Your task to perform on an android device: turn off translation in the chrome app Image 0: 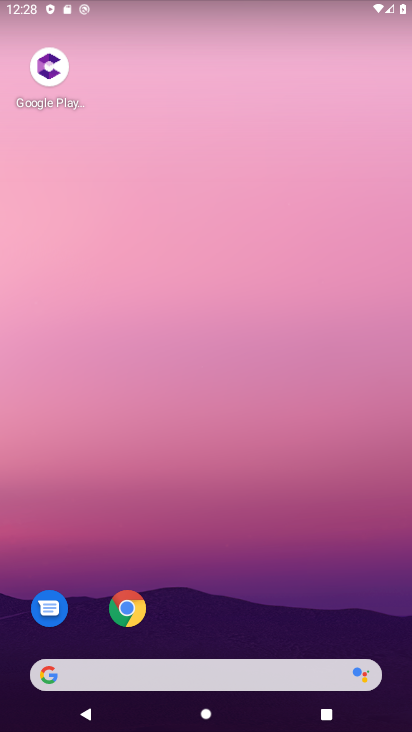
Step 0: press home button
Your task to perform on an android device: turn off translation in the chrome app Image 1: 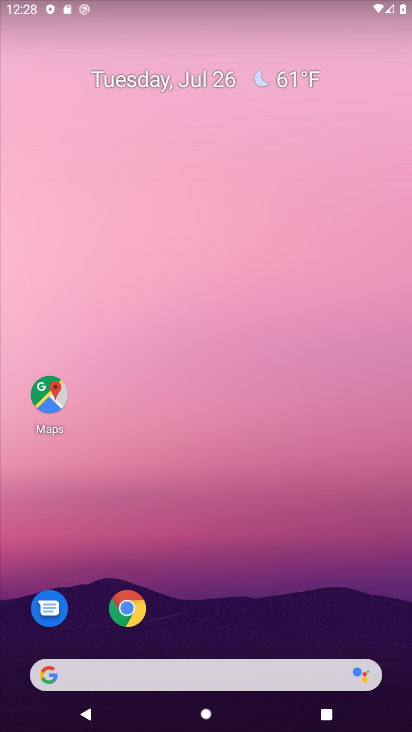
Step 1: drag from (340, 615) to (327, 186)
Your task to perform on an android device: turn off translation in the chrome app Image 2: 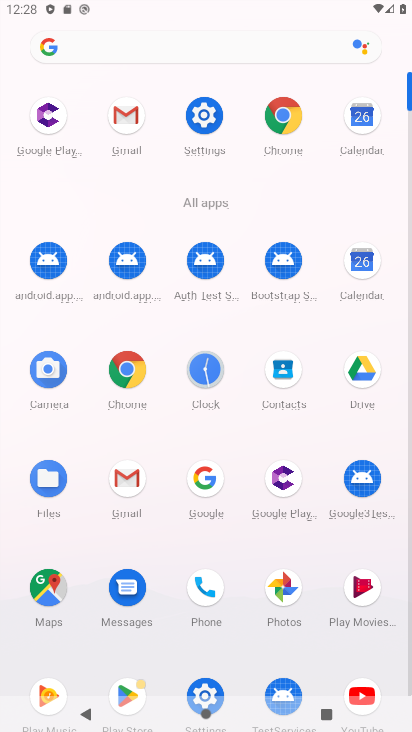
Step 2: click (135, 366)
Your task to perform on an android device: turn off translation in the chrome app Image 3: 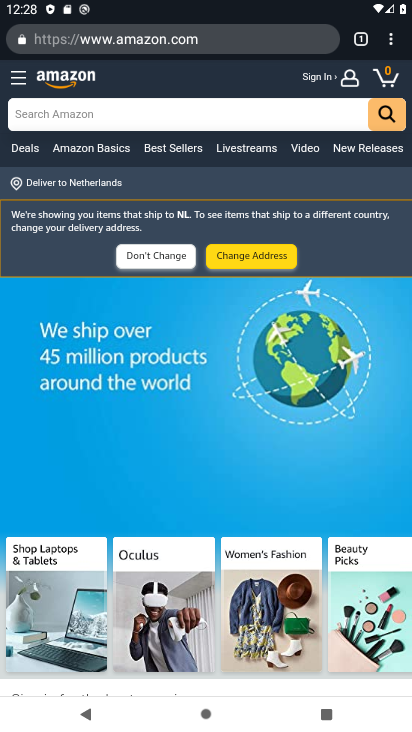
Step 3: click (393, 40)
Your task to perform on an android device: turn off translation in the chrome app Image 4: 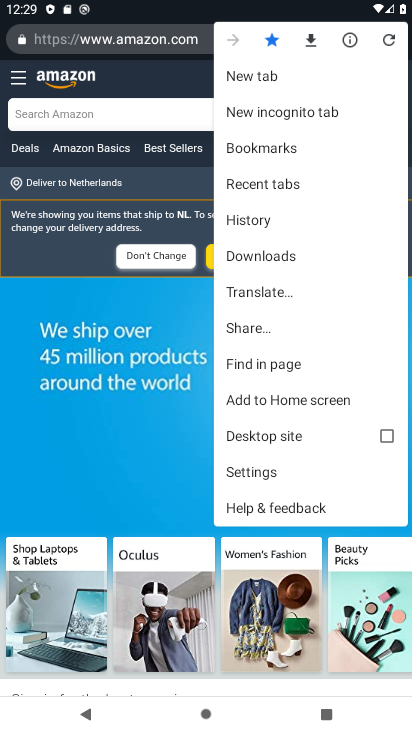
Step 4: click (269, 473)
Your task to perform on an android device: turn off translation in the chrome app Image 5: 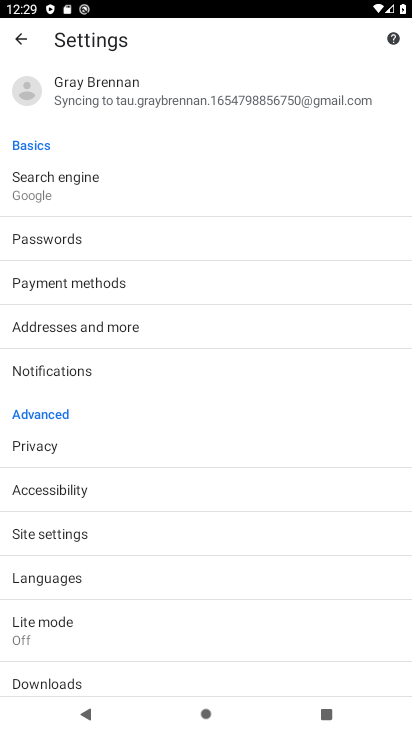
Step 5: drag from (330, 493) to (339, 401)
Your task to perform on an android device: turn off translation in the chrome app Image 6: 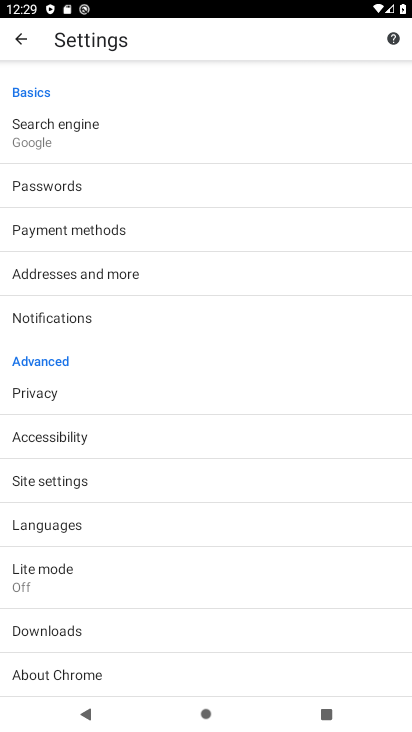
Step 6: drag from (320, 585) to (320, 480)
Your task to perform on an android device: turn off translation in the chrome app Image 7: 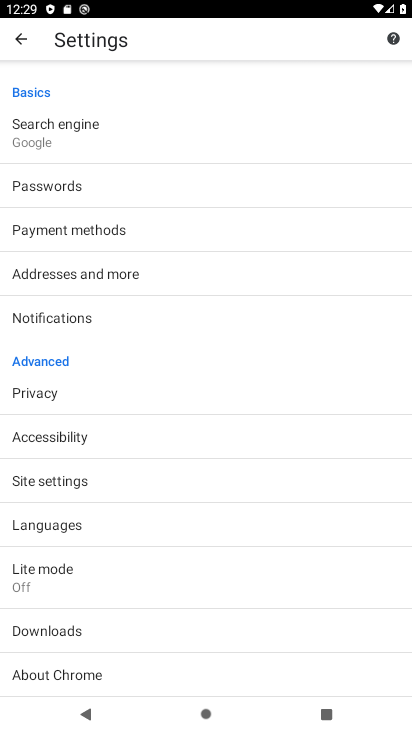
Step 7: click (207, 526)
Your task to perform on an android device: turn off translation in the chrome app Image 8: 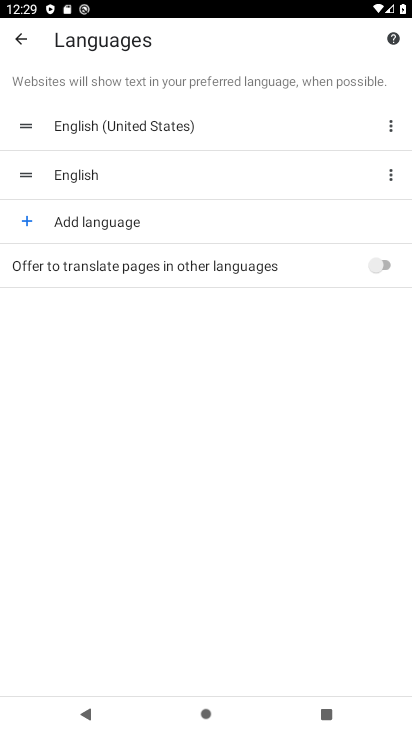
Step 8: task complete